Your task to perform on an android device: turn off javascript in the chrome app Image 0: 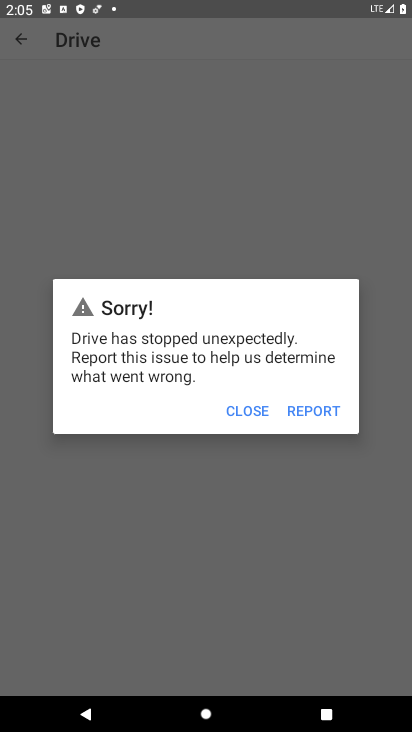
Step 0: press home button
Your task to perform on an android device: turn off javascript in the chrome app Image 1: 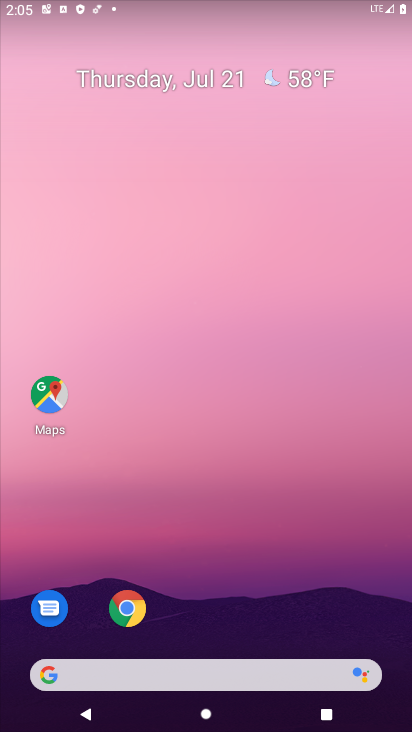
Step 1: drag from (387, 674) to (218, 78)
Your task to perform on an android device: turn off javascript in the chrome app Image 2: 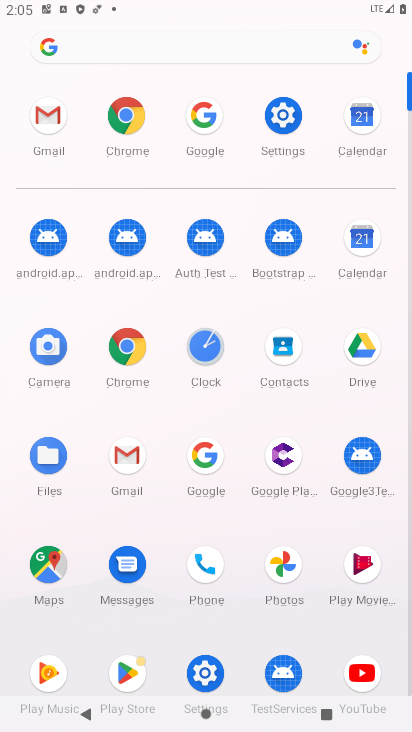
Step 2: click (120, 348)
Your task to perform on an android device: turn off javascript in the chrome app Image 3: 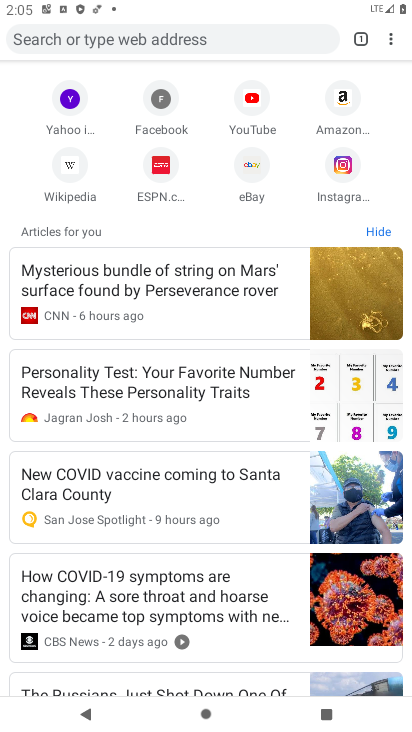
Step 3: click (384, 39)
Your task to perform on an android device: turn off javascript in the chrome app Image 4: 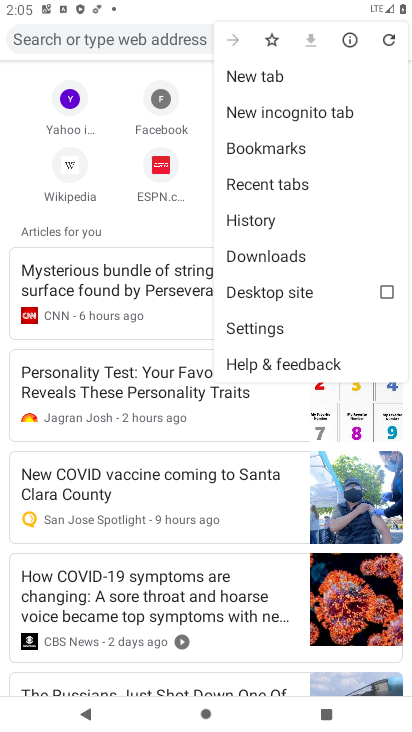
Step 4: click (245, 321)
Your task to perform on an android device: turn off javascript in the chrome app Image 5: 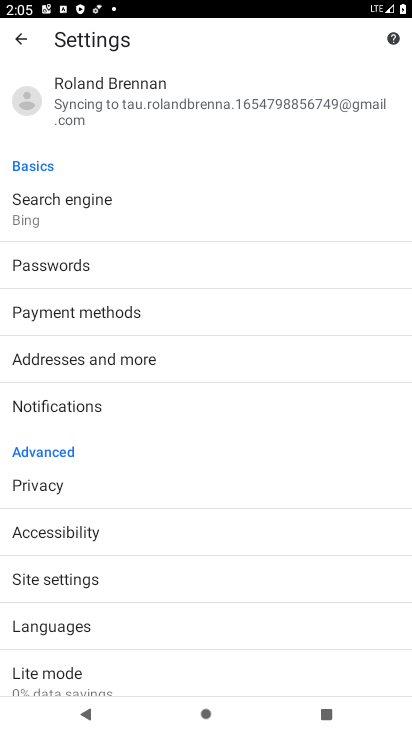
Step 5: click (97, 572)
Your task to perform on an android device: turn off javascript in the chrome app Image 6: 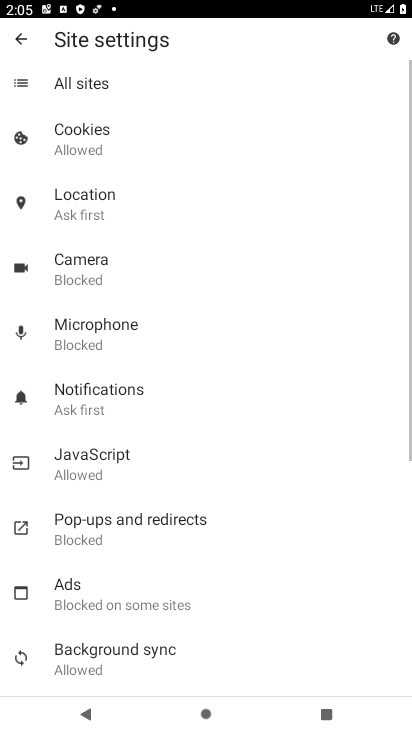
Step 6: click (106, 466)
Your task to perform on an android device: turn off javascript in the chrome app Image 7: 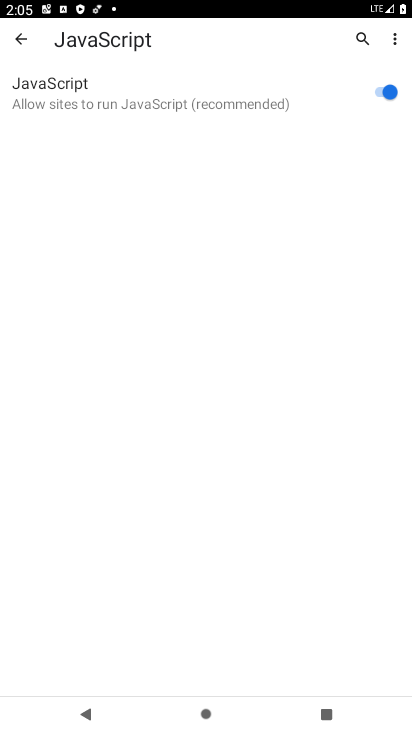
Step 7: click (346, 104)
Your task to perform on an android device: turn off javascript in the chrome app Image 8: 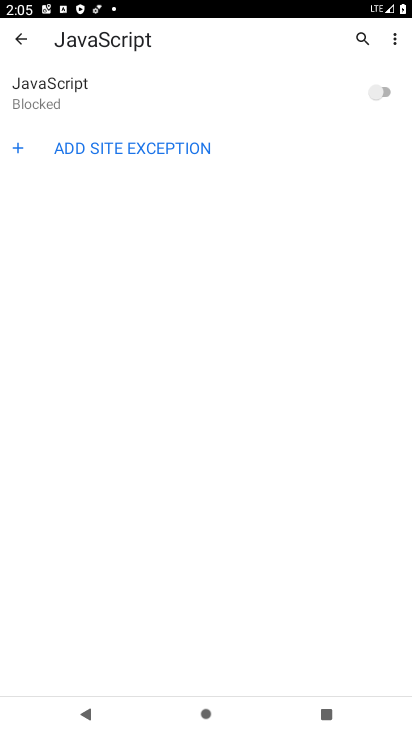
Step 8: task complete